Your task to perform on an android device: Open Android settings Image 0: 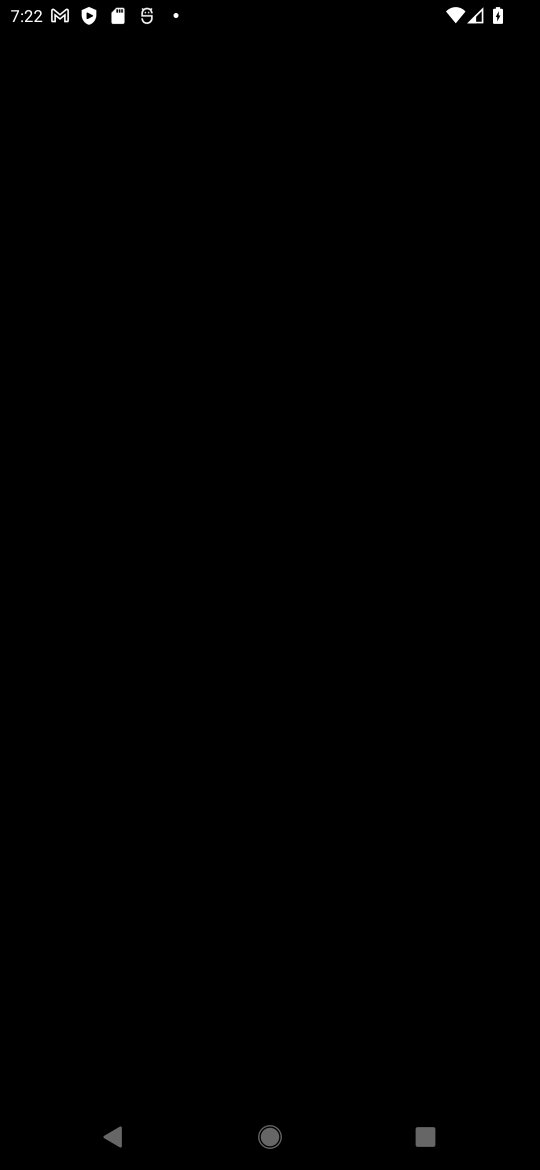
Step 0: press home button
Your task to perform on an android device: Open Android settings Image 1: 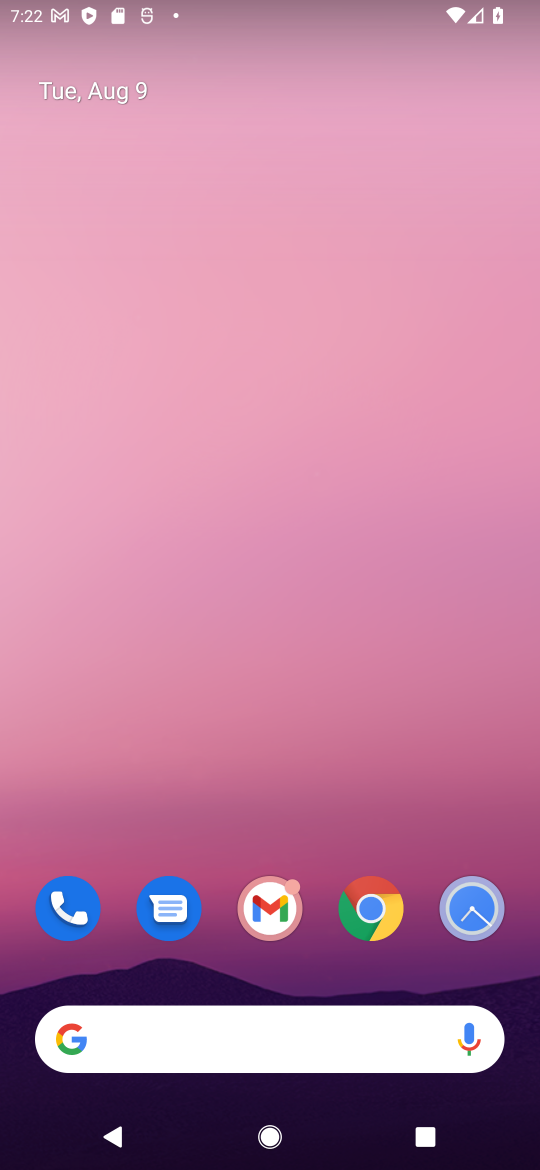
Step 1: drag from (339, 994) to (337, 73)
Your task to perform on an android device: Open Android settings Image 2: 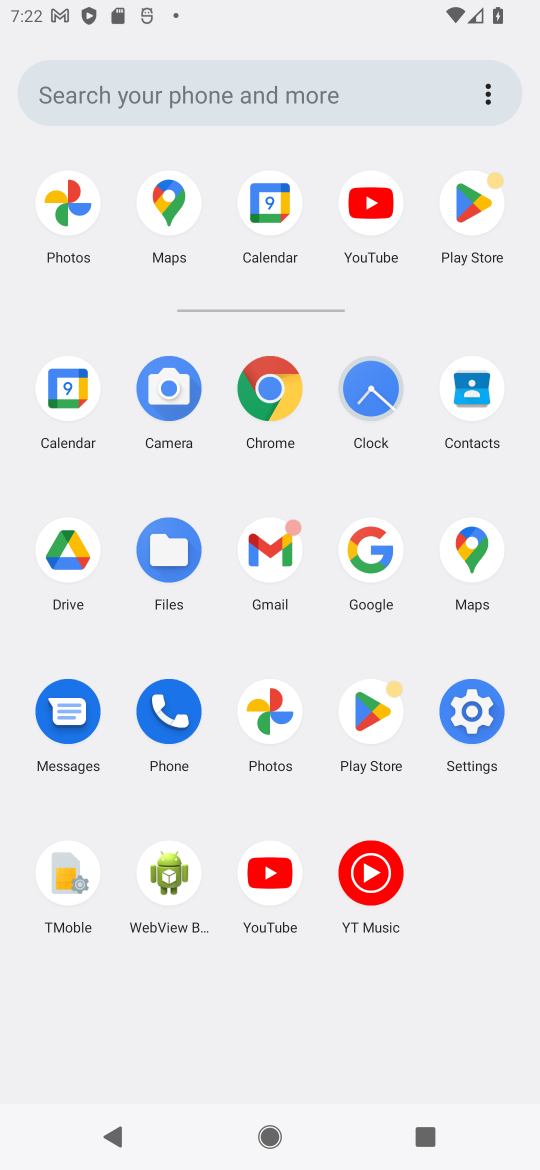
Step 2: click (471, 699)
Your task to perform on an android device: Open Android settings Image 3: 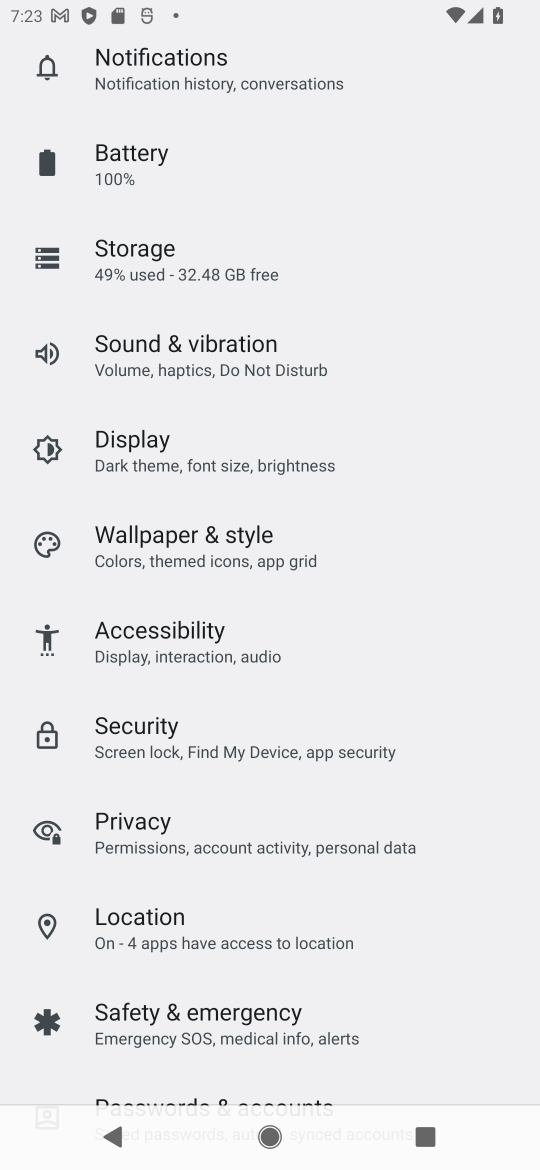
Step 3: task complete